Your task to perform on an android device: Go to Amazon Image 0: 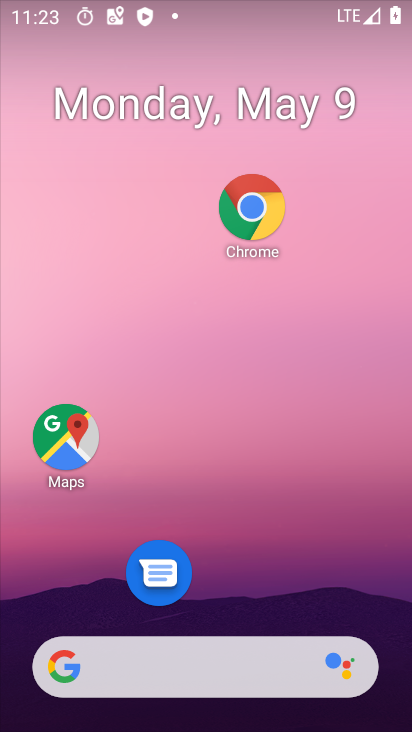
Step 0: drag from (337, 574) to (393, 140)
Your task to perform on an android device: Go to Amazon Image 1: 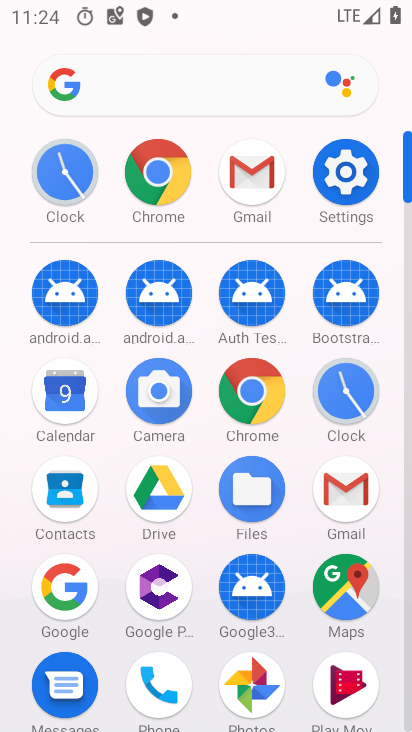
Step 1: click (154, 212)
Your task to perform on an android device: Go to Amazon Image 2: 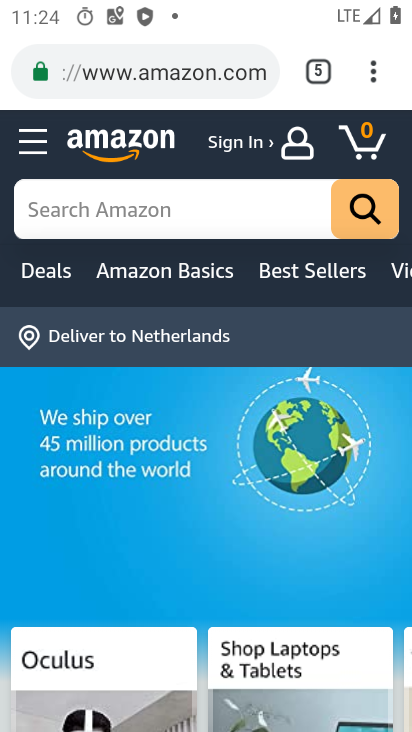
Step 2: task complete